Your task to perform on an android device: turn notification dots on Image 0: 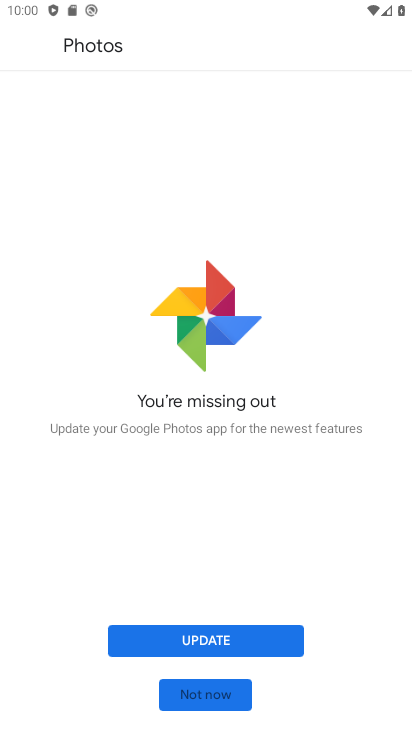
Step 0: press home button
Your task to perform on an android device: turn notification dots on Image 1: 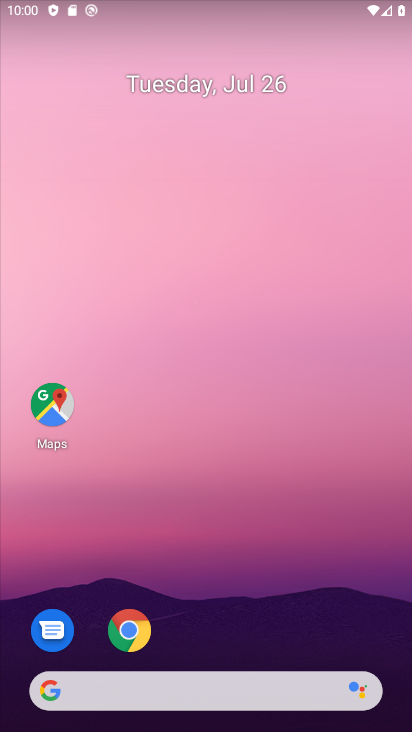
Step 1: drag from (380, 631) to (339, 236)
Your task to perform on an android device: turn notification dots on Image 2: 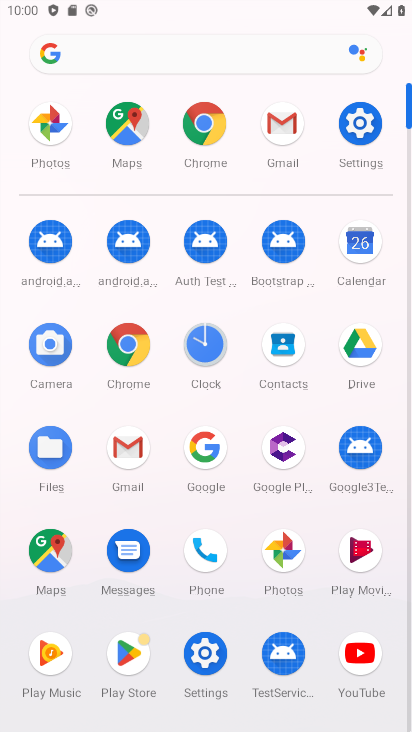
Step 2: click (204, 651)
Your task to perform on an android device: turn notification dots on Image 3: 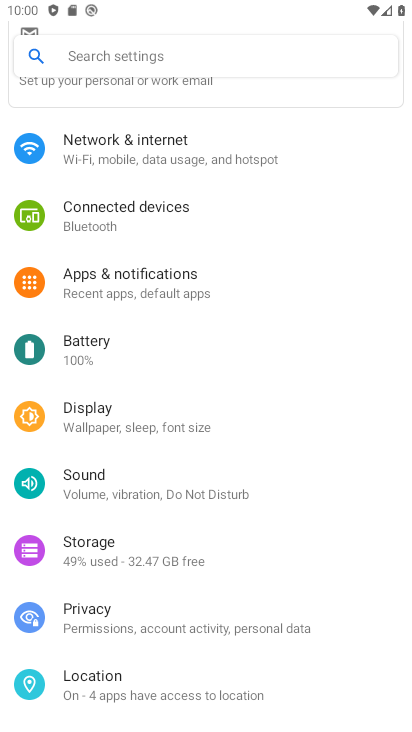
Step 3: click (128, 284)
Your task to perform on an android device: turn notification dots on Image 4: 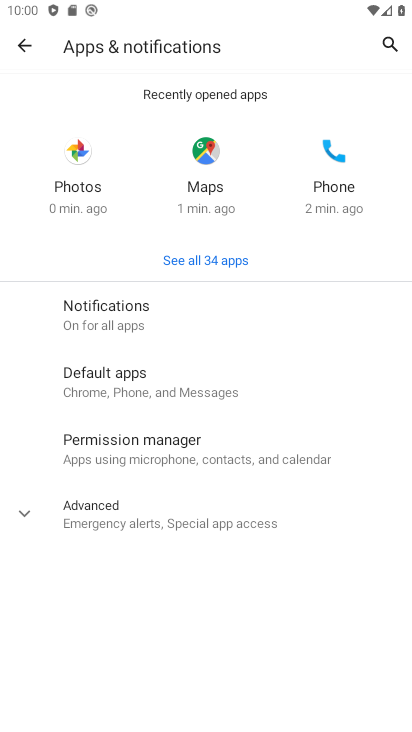
Step 4: click (114, 308)
Your task to perform on an android device: turn notification dots on Image 5: 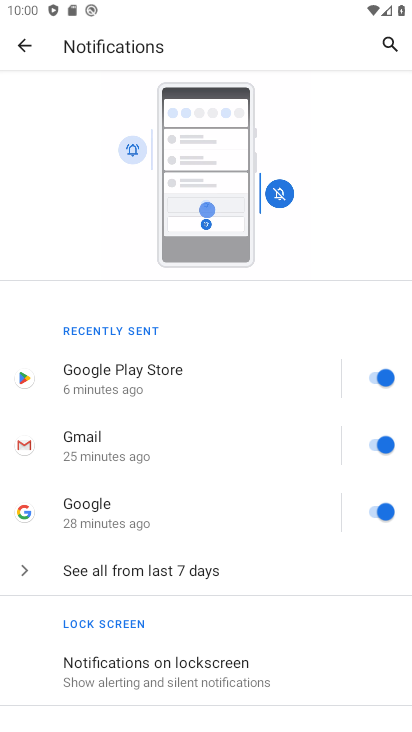
Step 5: drag from (277, 639) to (305, 272)
Your task to perform on an android device: turn notification dots on Image 6: 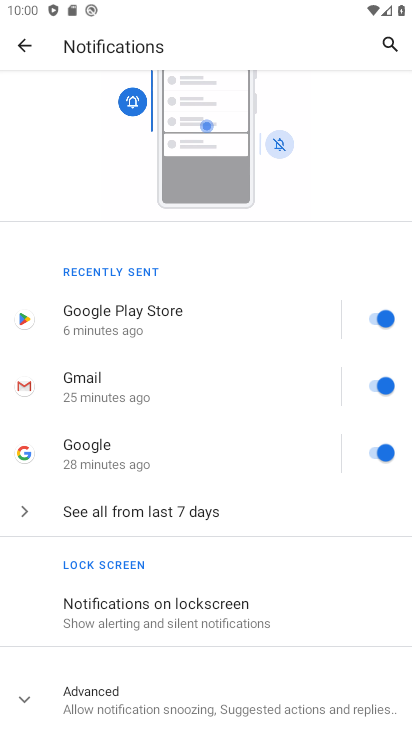
Step 6: click (27, 698)
Your task to perform on an android device: turn notification dots on Image 7: 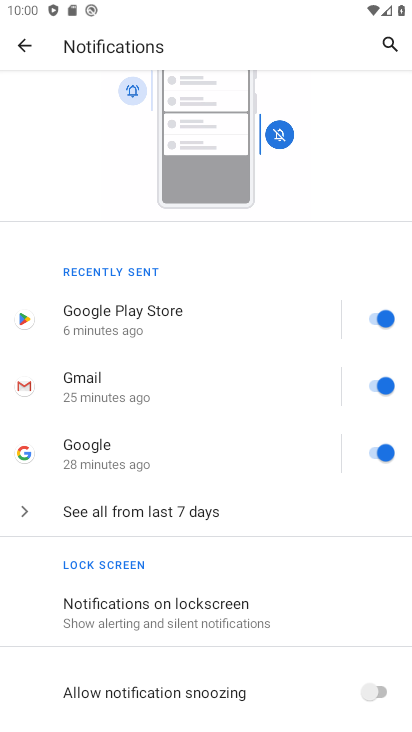
Step 7: task complete